Your task to perform on an android device: What's the weather going to be tomorrow? Image 0: 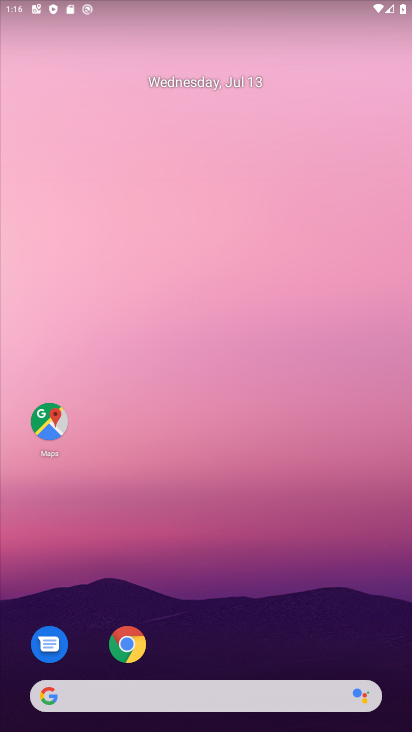
Step 0: press home button
Your task to perform on an android device: What's the weather going to be tomorrow? Image 1: 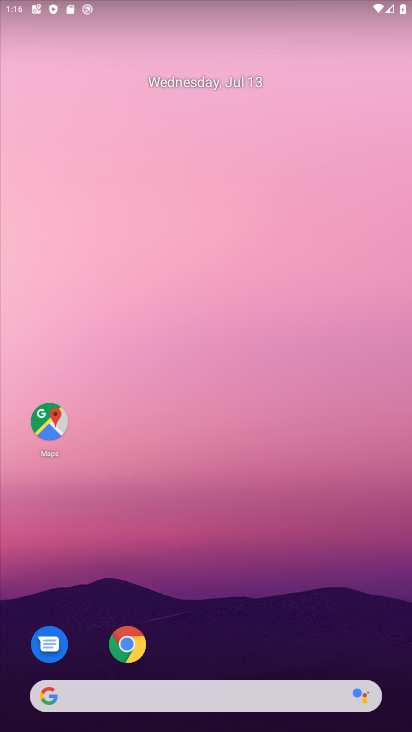
Step 1: click (205, 699)
Your task to perform on an android device: What's the weather going to be tomorrow? Image 2: 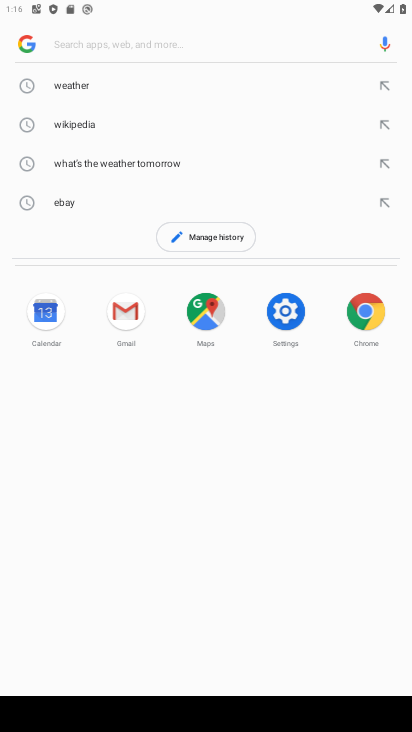
Step 2: type "What's the weather going to be tomorrow?"
Your task to perform on an android device: What's the weather going to be tomorrow? Image 3: 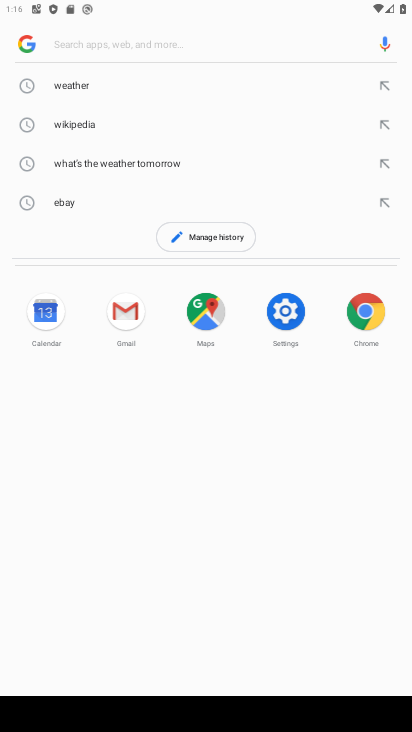
Step 3: click (84, 37)
Your task to perform on an android device: What's the weather going to be tomorrow? Image 4: 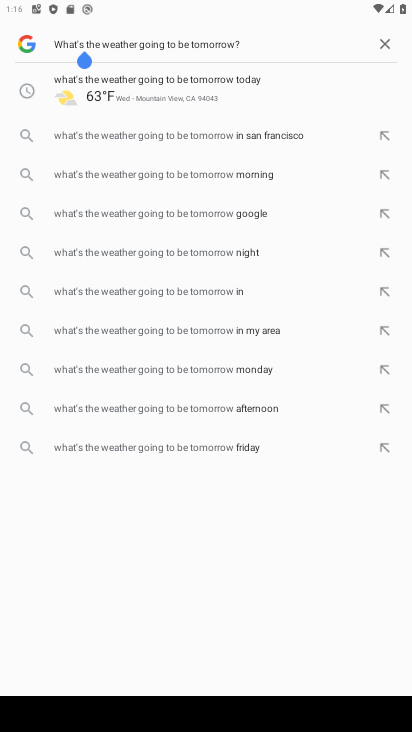
Step 4: click (95, 41)
Your task to perform on an android device: What's the weather going to be tomorrow? Image 5: 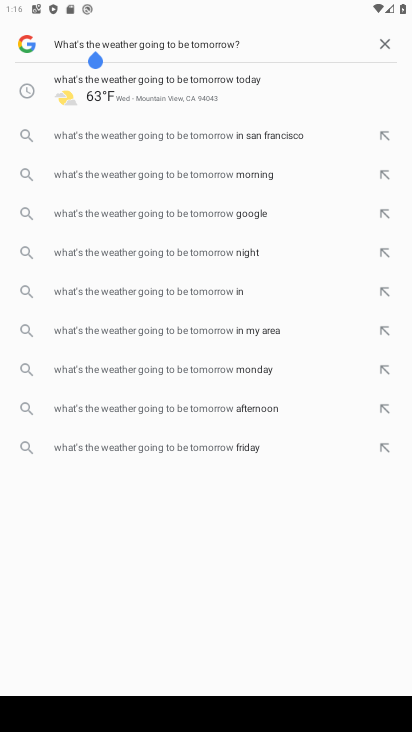
Step 5: press enter
Your task to perform on an android device: What's the weather going to be tomorrow? Image 6: 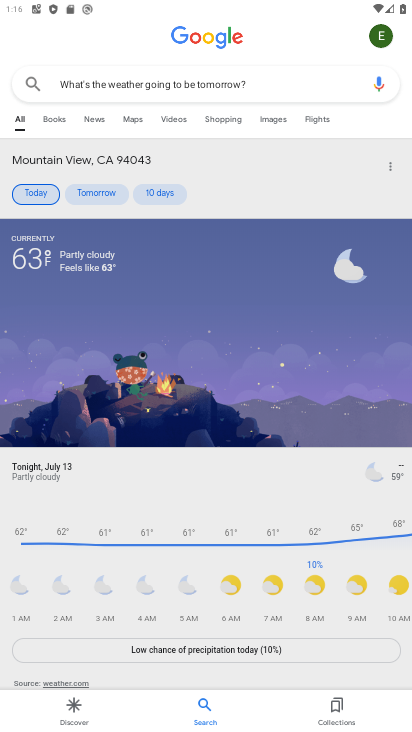
Step 6: task complete